Your task to perform on an android device: see tabs open on other devices in the chrome app Image 0: 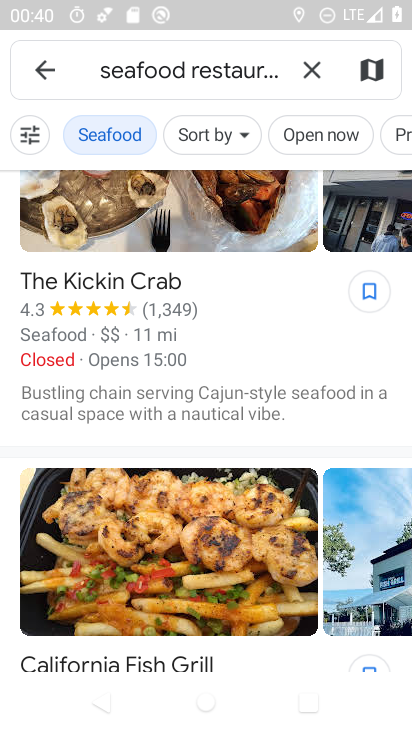
Step 0: drag from (193, 533) to (278, 268)
Your task to perform on an android device: see tabs open on other devices in the chrome app Image 1: 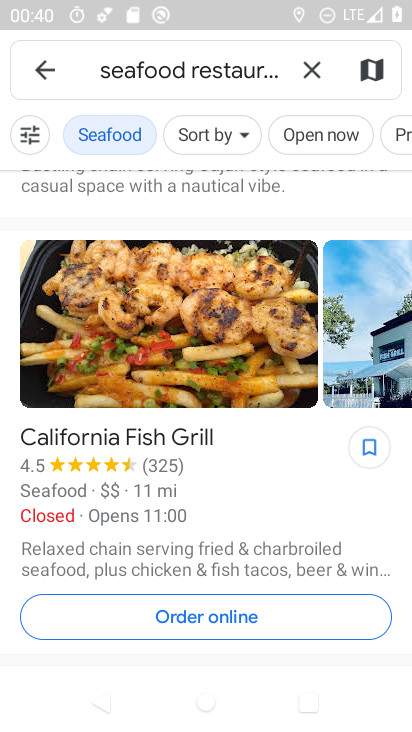
Step 1: press home button
Your task to perform on an android device: see tabs open on other devices in the chrome app Image 2: 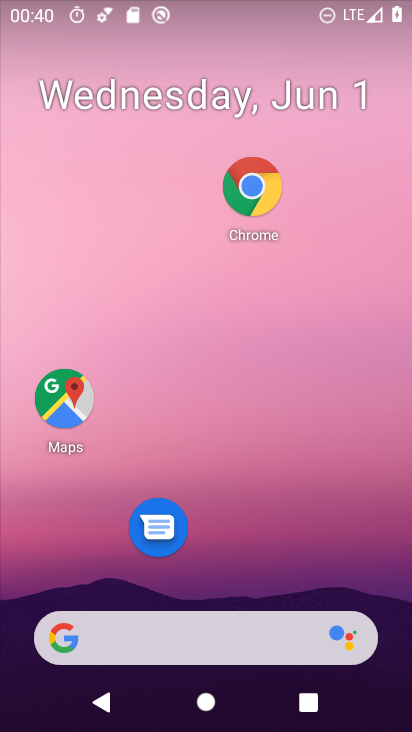
Step 2: drag from (212, 545) to (215, 194)
Your task to perform on an android device: see tabs open on other devices in the chrome app Image 3: 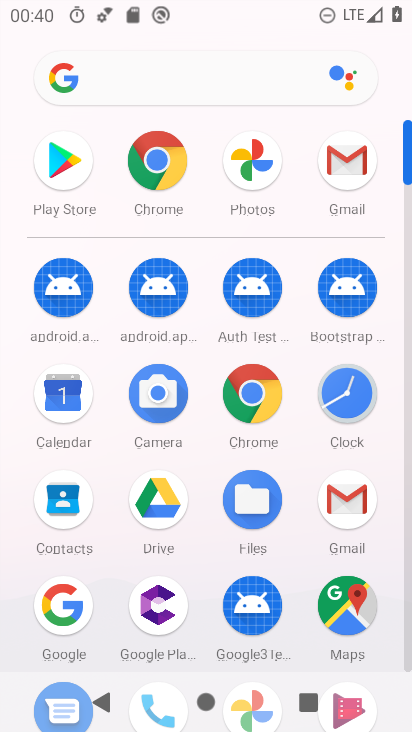
Step 3: click (241, 398)
Your task to perform on an android device: see tabs open on other devices in the chrome app Image 4: 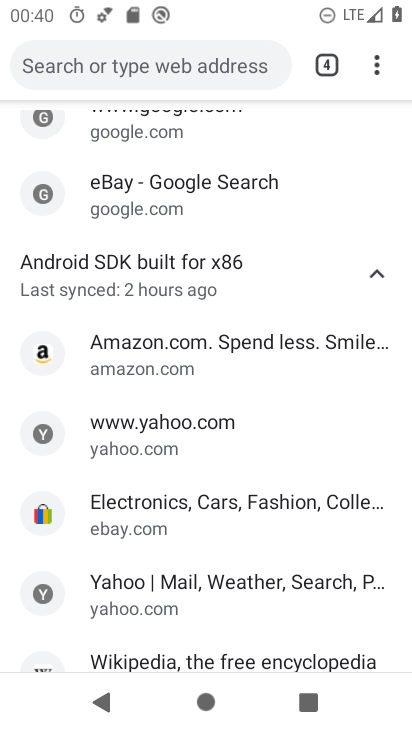
Step 4: click (377, 63)
Your task to perform on an android device: see tabs open on other devices in the chrome app Image 5: 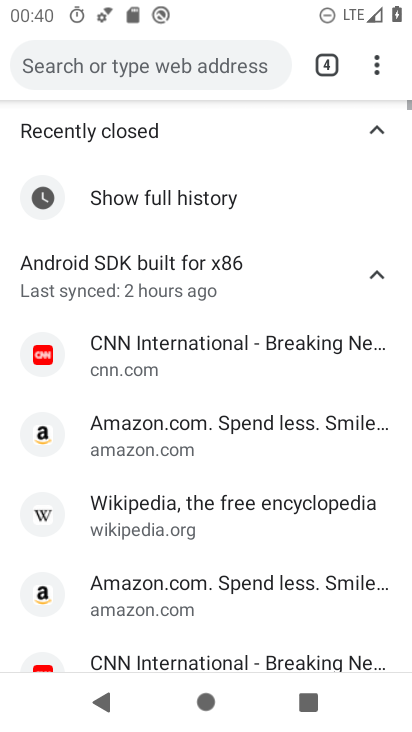
Step 5: task complete